Your task to perform on an android device: turn on data saver in the chrome app Image 0: 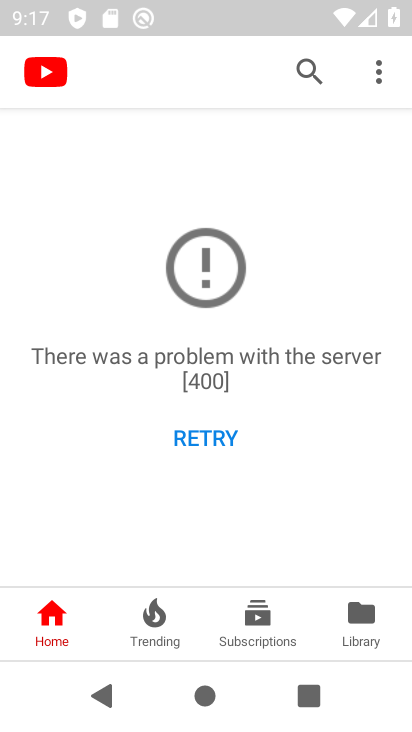
Step 0: press home button
Your task to perform on an android device: turn on data saver in the chrome app Image 1: 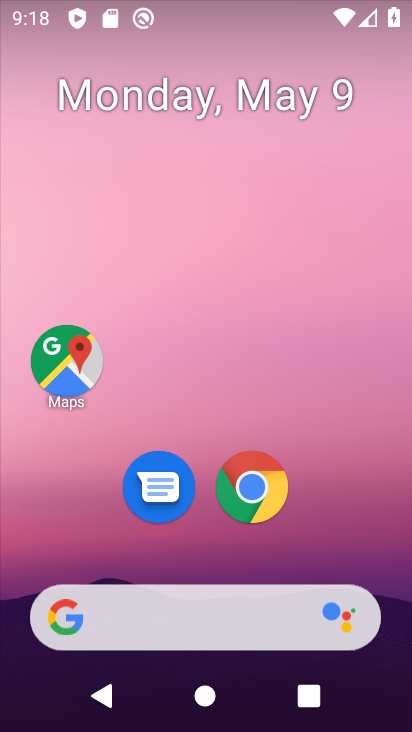
Step 1: click (258, 478)
Your task to perform on an android device: turn on data saver in the chrome app Image 2: 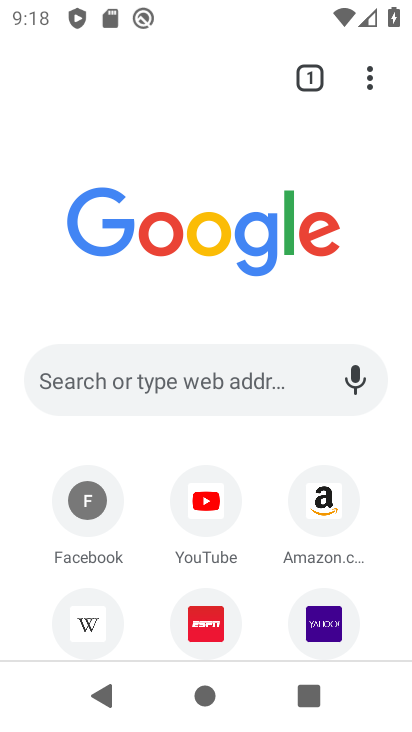
Step 2: click (357, 73)
Your task to perform on an android device: turn on data saver in the chrome app Image 3: 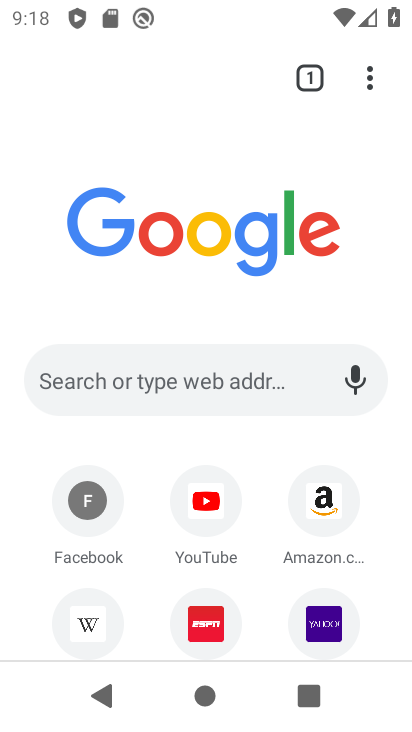
Step 3: drag from (143, 598) to (306, 80)
Your task to perform on an android device: turn on data saver in the chrome app Image 4: 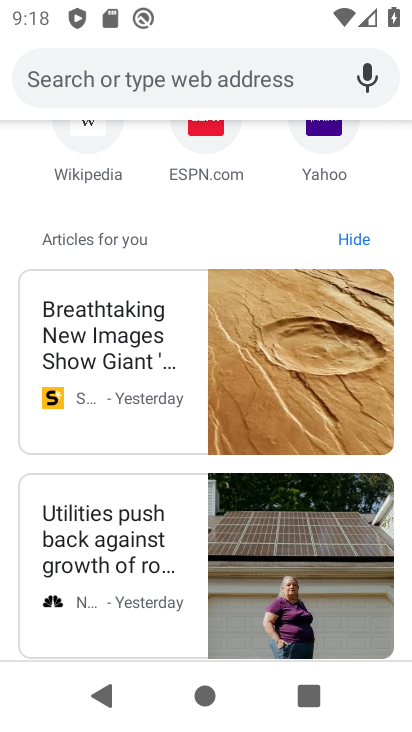
Step 4: drag from (293, 157) to (196, 602)
Your task to perform on an android device: turn on data saver in the chrome app Image 5: 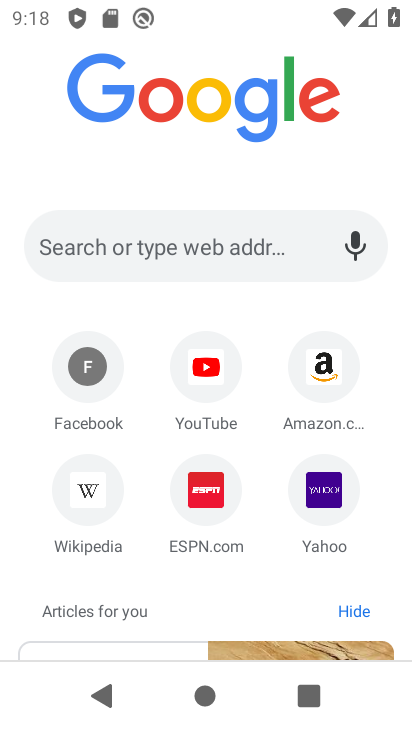
Step 5: drag from (326, 109) to (245, 529)
Your task to perform on an android device: turn on data saver in the chrome app Image 6: 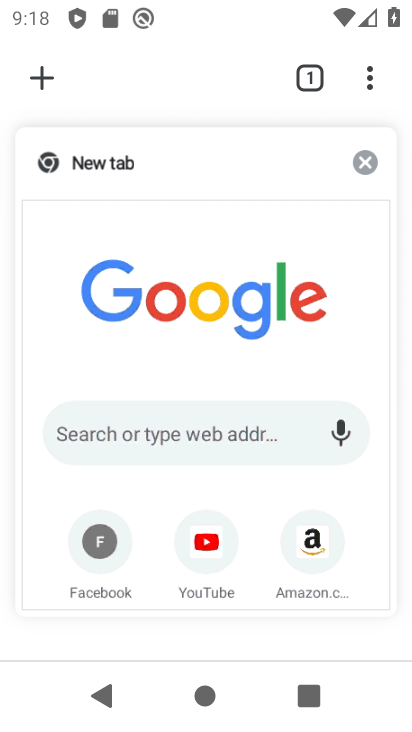
Step 6: click (264, 252)
Your task to perform on an android device: turn on data saver in the chrome app Image 7: 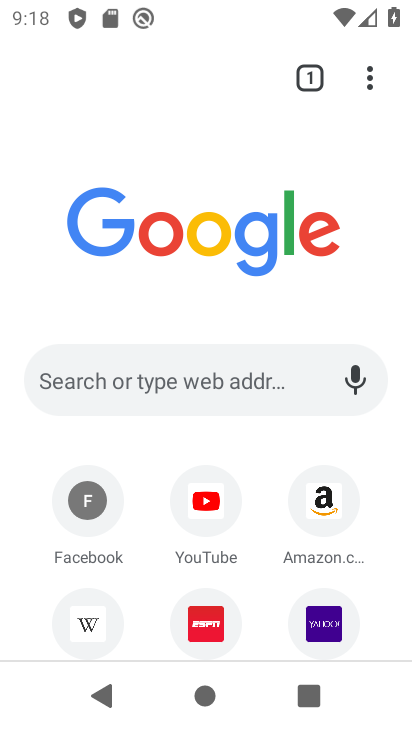
Step 7: click (356, 86)
Your task to perform on an android device: turn on data saver in the chrome app Image 8: 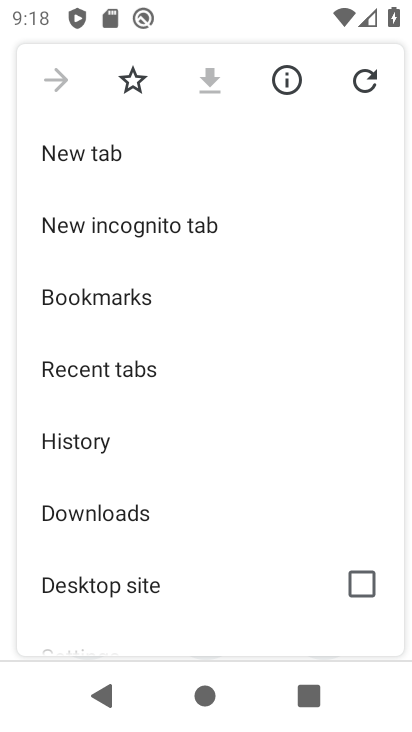
Step 8: drag from (132, 589) to (263, 100)
Your task to perform on an android device: turn on data saver in the chrome app Image 9: 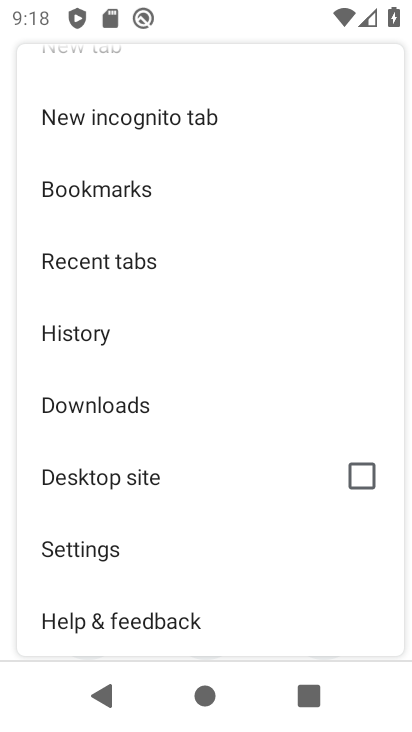
Step 9: click (68, 539)
Your task to perform on an android device: turn on data saver in the chrome app Image 10: 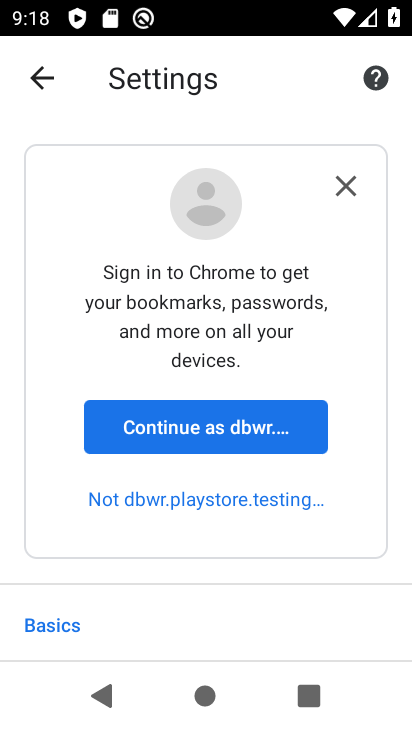
Step 10: click (347, 184)
Your task to perform on an android device: turn on data saver in the chrome app Image 11: 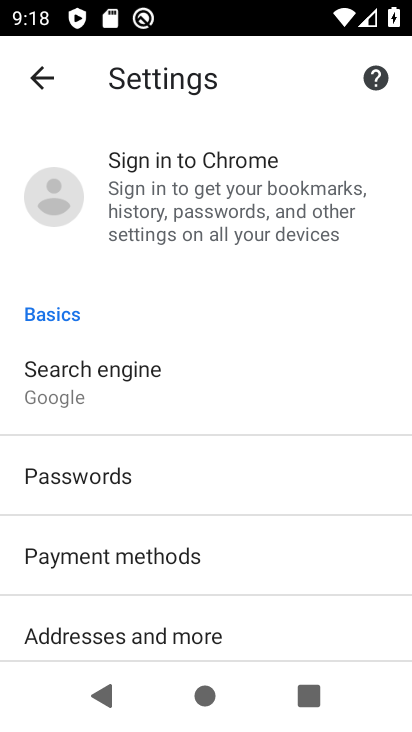
Step 11: drag from (65, 681) to (206, 241)
Your task to perform on an android device: turn on data saver in the chrome app Image 12: 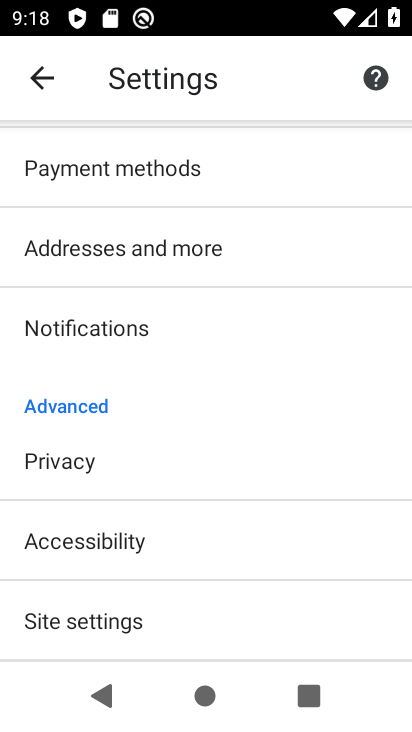
Step 12: drag from (67, 616) to (195, 265)
Your task to perform on an android device: turn on data saver in the chrome app Image 13: 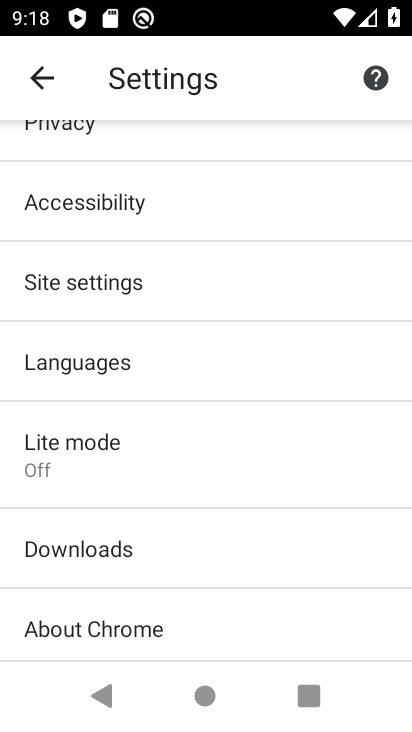
Step 13: click (106, 448)
Your task to perform on an android device: turn on data saver in the chrome app Image 14: 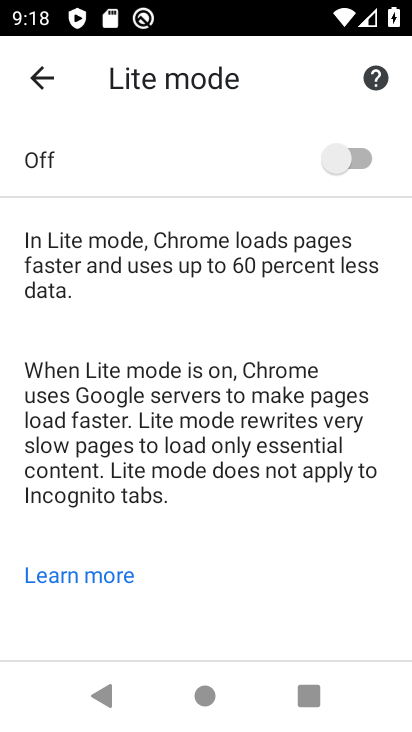
Step 14: click (323, 159)
Your task to perform on an android device: turn on data saver in the chrome app Image 15: 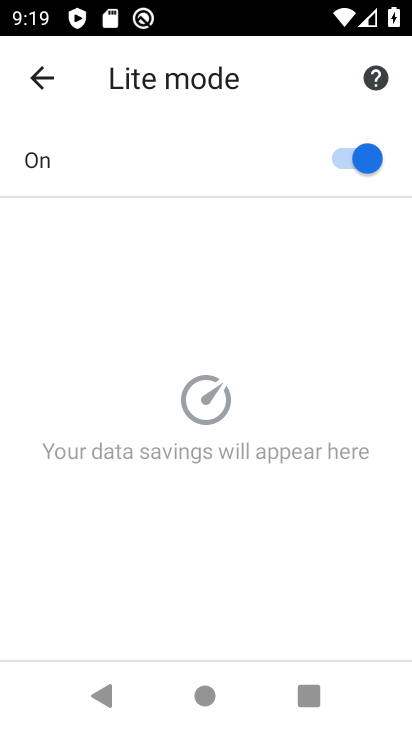
Step 15: task complete